Your task to perform on an android device: Open the calendar app, open the side menu, and click the "Day" option Image 0: 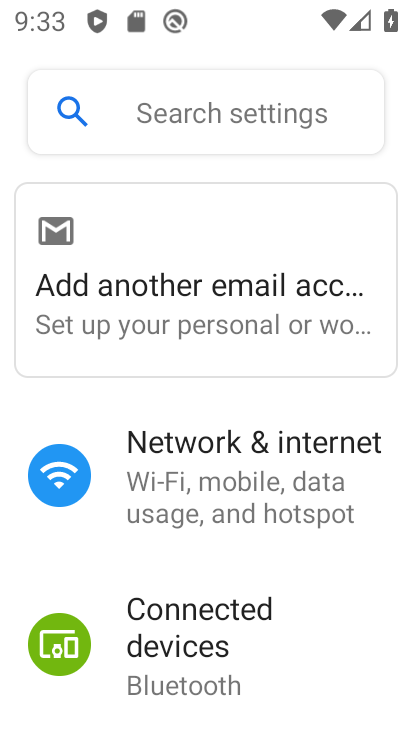
Step 0: press home button
Your task to perform on an android device: Open the calendar app, open the side menu, and click the "Day" option Image 1: 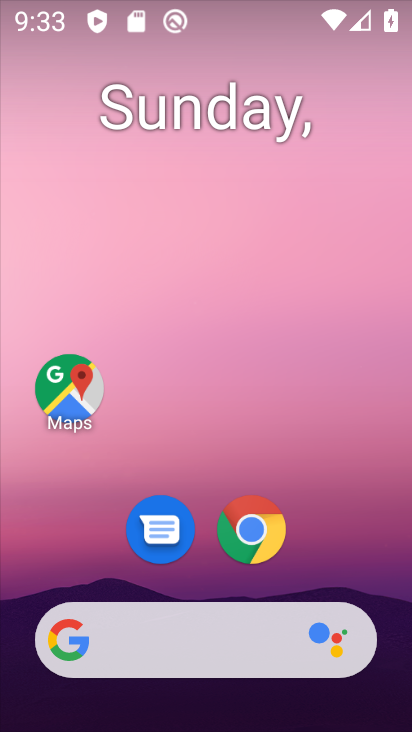
Step 1: drag from (340, 553) to (183, 24)
Your task to perform on an android device: Open the calendar app, open the side menu, and click the "Day" option Image 2: 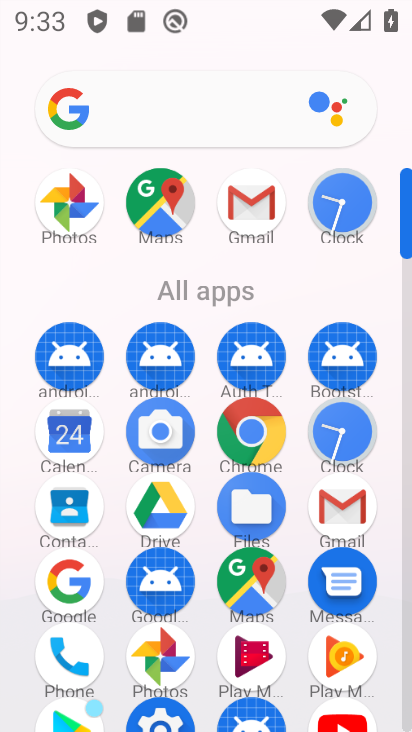
Step 2: click (63, 420)
Your task to perform on an android device: Open the calendar app, open the side menu, and click the "Day" option Image 3: 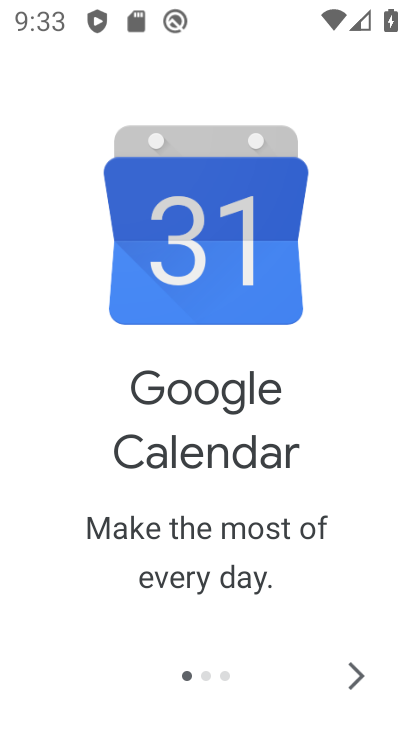
Step 3: click (354, 672)
Your task to perform on an android device: Open the calendar app, open the side menu, and click the "Day" option Image 4: 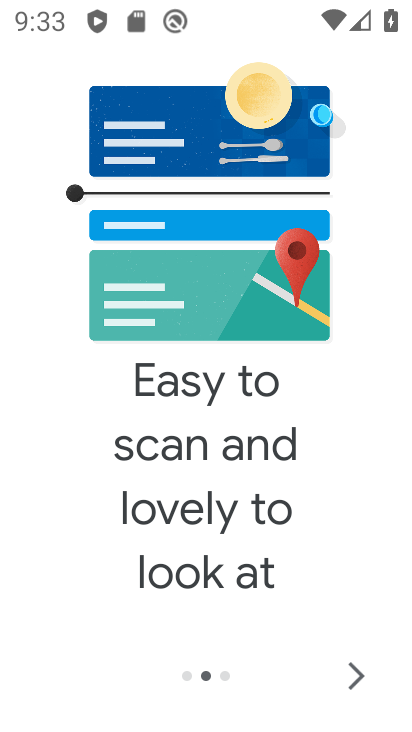
Step 4: click (354, 672)
Your task to perform on an android device: Open the calendar app, open the side menu, and click the "Day" option Image 5: 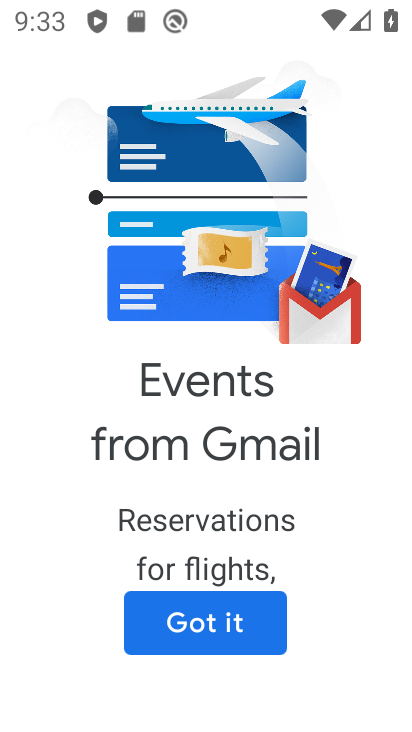
Step 5: click (354, 672)
Your task to perform on an android device: Open the calendar app, open the side menu, and click the "Day" option Image 6: 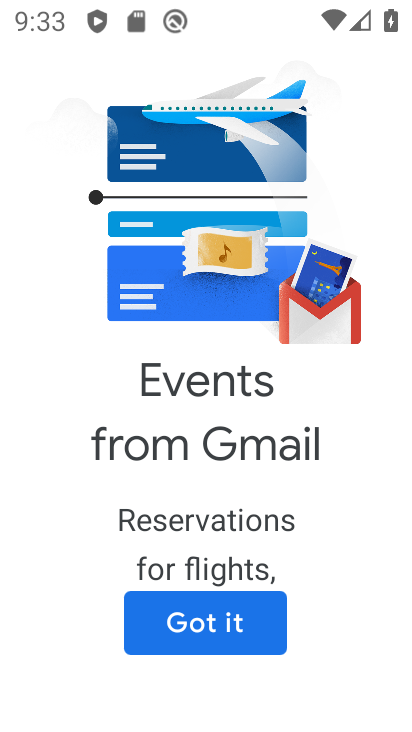
Step 6: click (226, 624)
Your task to perform on an android device: Open the calendar app, open the side menu, and click the "Day" option Image 7: 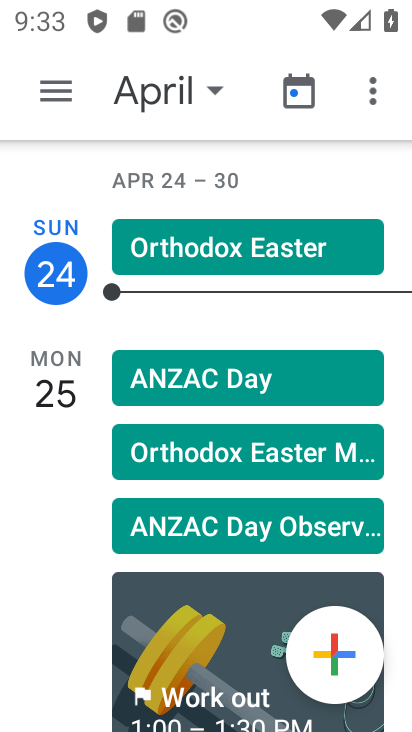
Step 7: click (56, 80)
Your task to perform on an android device: Open the calendar app, open the side menu, and click the "Day" option Image 8: 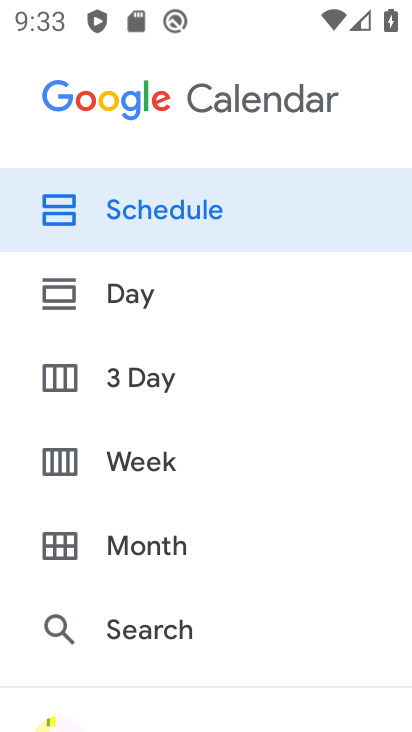
Step 8: click (126, 307)
Your task to perform on an android device: Open the calendar app, open the side menu, and click the "Day" option Image 9: 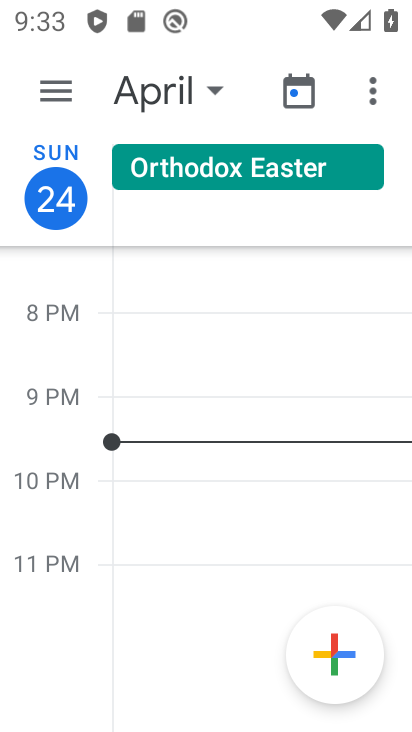
Step 9: task complete